Your task to perform on an android device: read, delete, or share a saved page in the chrome app Image 0: 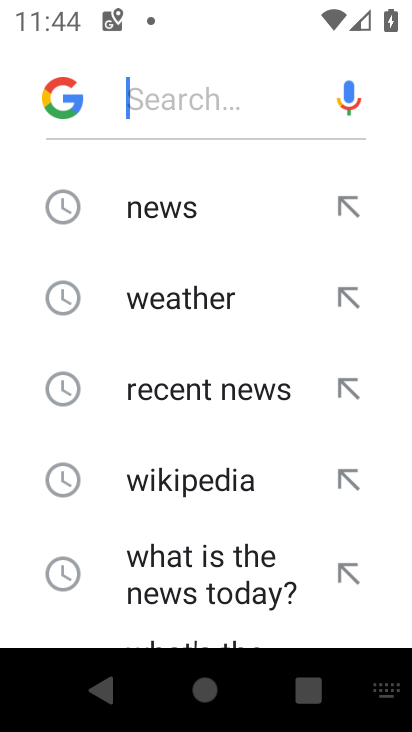
Step 0: press back button
Your task to perform on an android device: read, delete, or share a saved page in the chrome app Image 1: 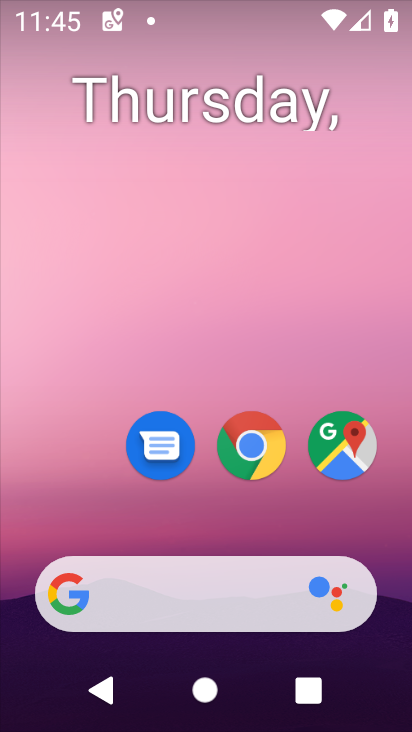
Step 1: drag from (341, 645) to (138, 133)
Your task to perform on an android device: read, delete, or share a saved page in the chrome app Image 2: 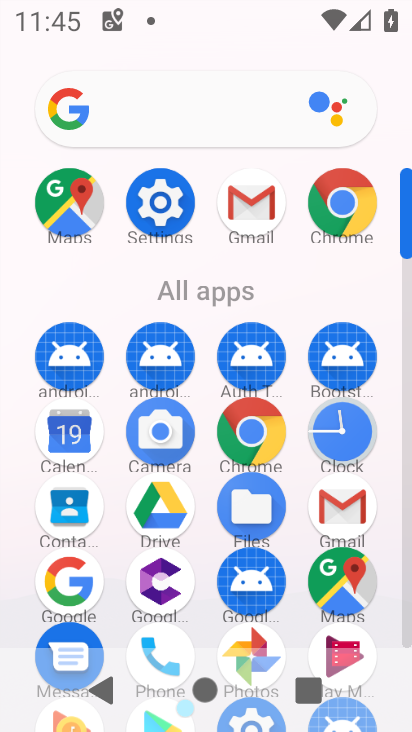
Step 2: click (261, 423)
Your task to perform on an android device: read, delete, or share a saved page in the chrome app Image 3: 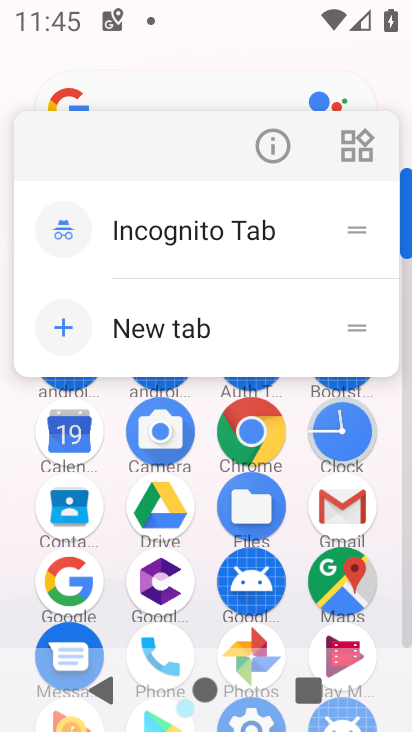
Step 3: click (261, 423)
Your task to perform on an android device: read, delete, or share a saved page in the chrome app Image 4: 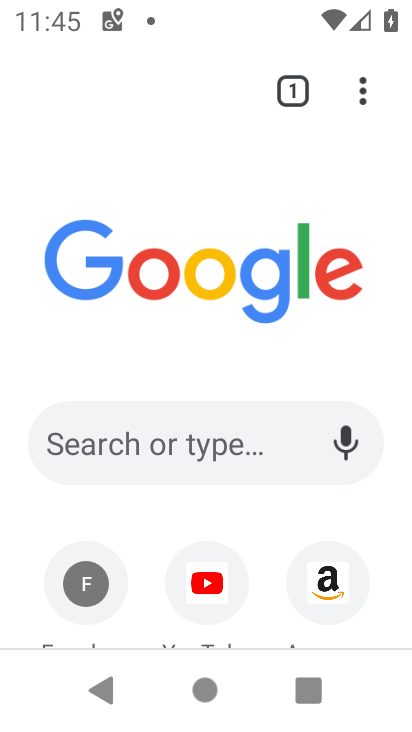
Step 4: click (357, 98)
Your task to perform on an android device: read, delete, or share a saved page in the chrome app Image 5: 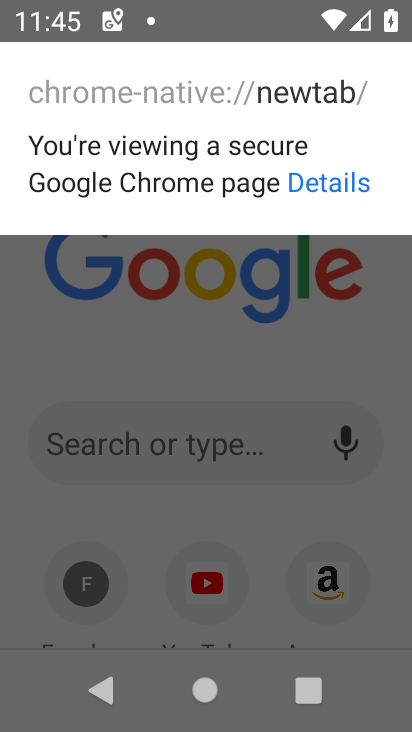
Step 5: click (280, 380)
Your task to perform on an android device: read, delete, or share a saved page in the chrome app Image 6: 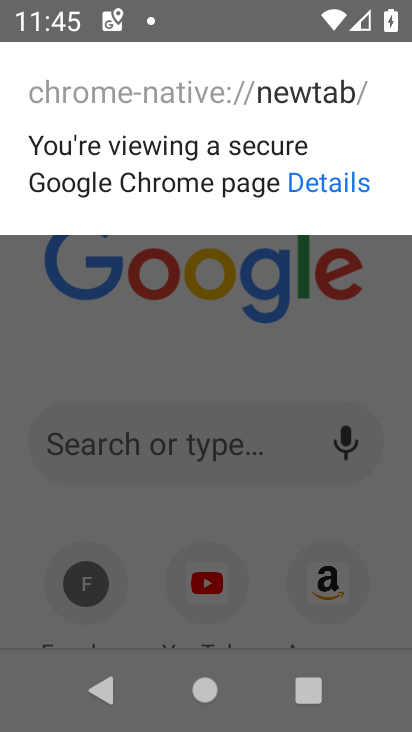
Step 6: click (279, 358)
Your task to perform on an android device: read, delete, or share a saved page in the chrome app Image 7: 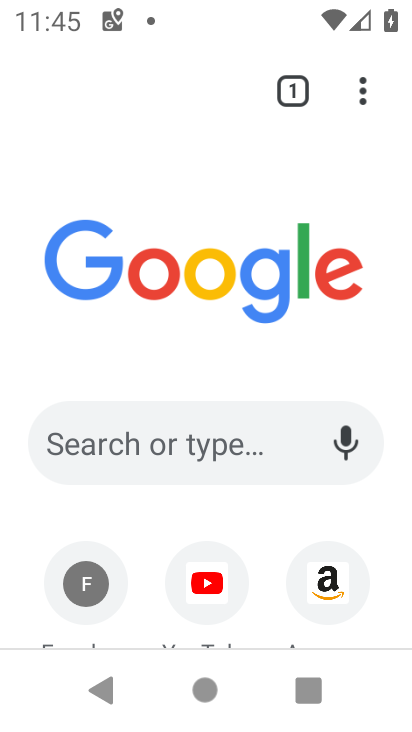
Step 7: drag from (367, 91) to (107, 305)
Your task to perform on an android device: read, delete, or share a saved page in the chrome app Image 8: 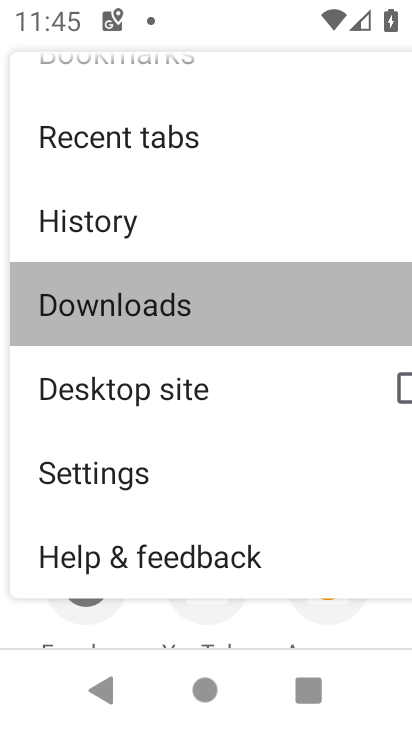
Step 8: click (107, 305)
Your task to perform on an android device: read, delete, or share a saved page in the chrome app Image 9: 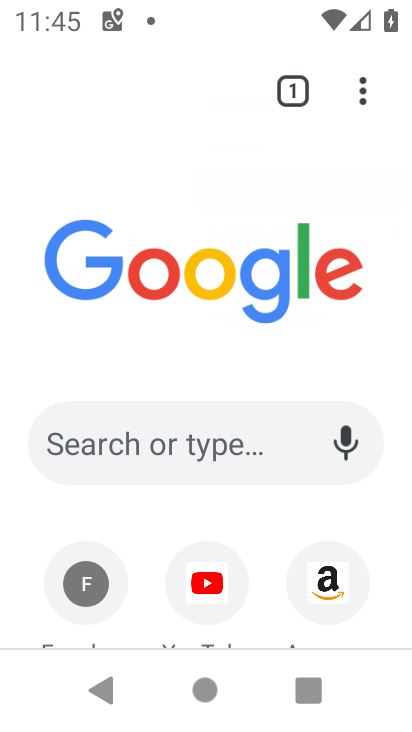
Step 9: click (107, 305)
Your task to perform on an android device: read, delete, or share a saved page in the chrome app Image 10: 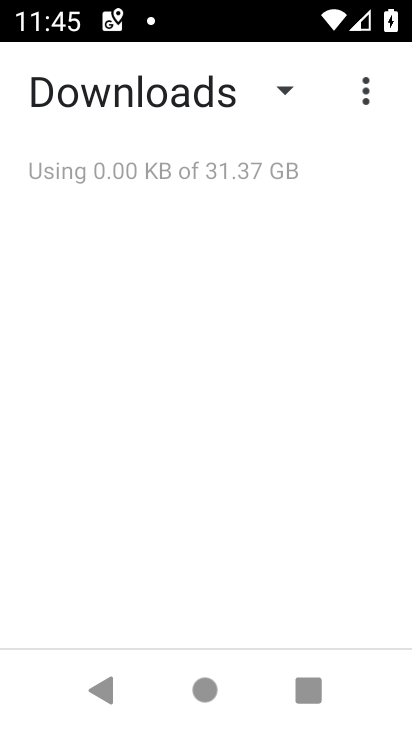
Step 10: task complete